Your task to perform on an android device: open app "Paramount+ | Peak Streaming" (install if not already installed) Image 0: 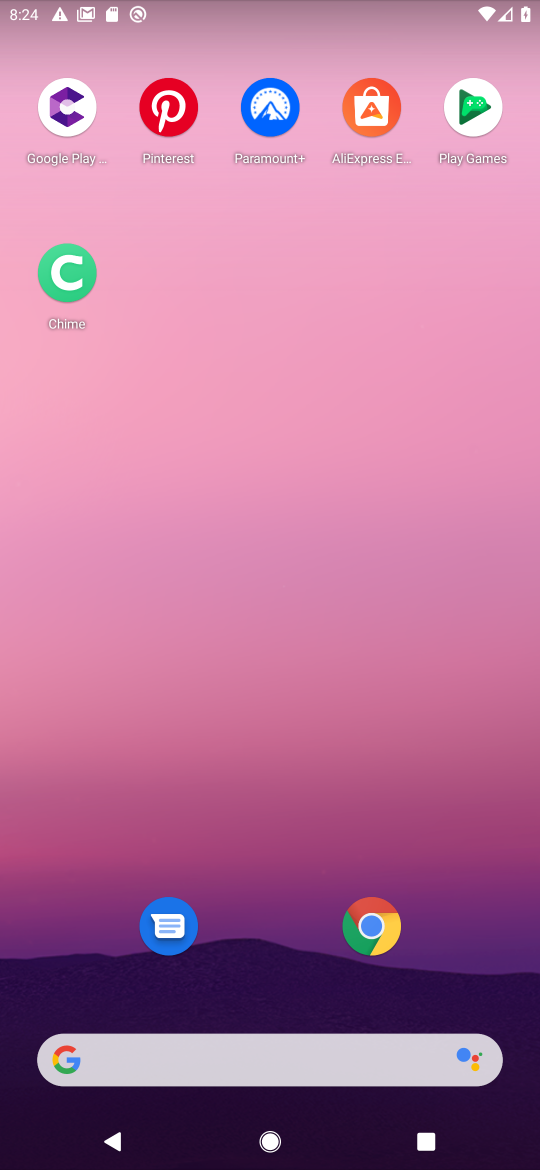
Step 0: click (277, 102)
Your task to perform on an android device: open app "Paramount+ | Peak Streaming" (install if not already installed) Image 1: 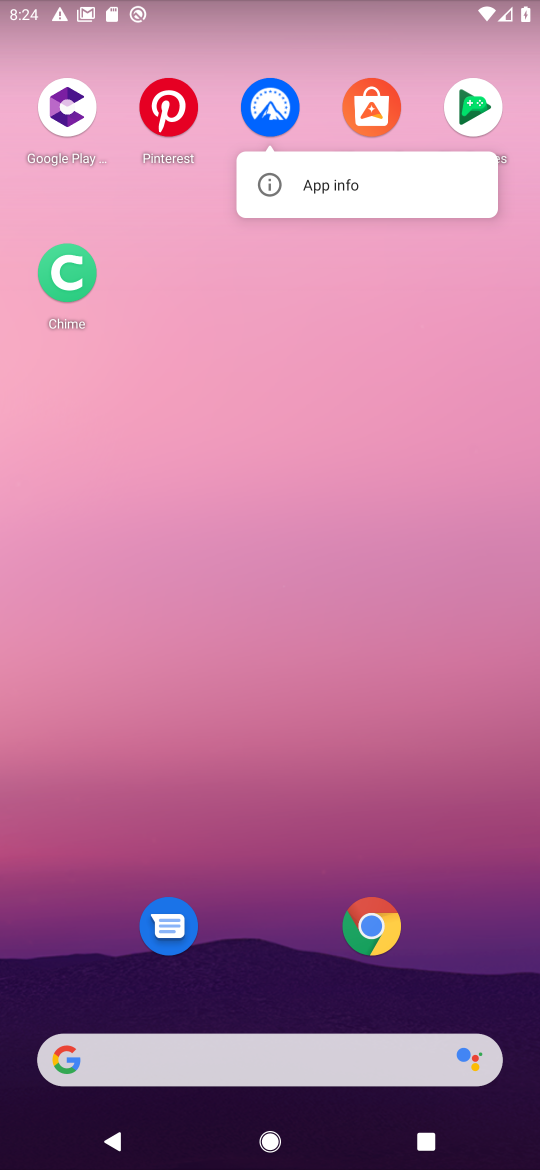
Step 1: click (258, 97)
Your task to perform on an android device: open app "Paramount+ | Peak Streaming" (install if not already installed) Image 2: 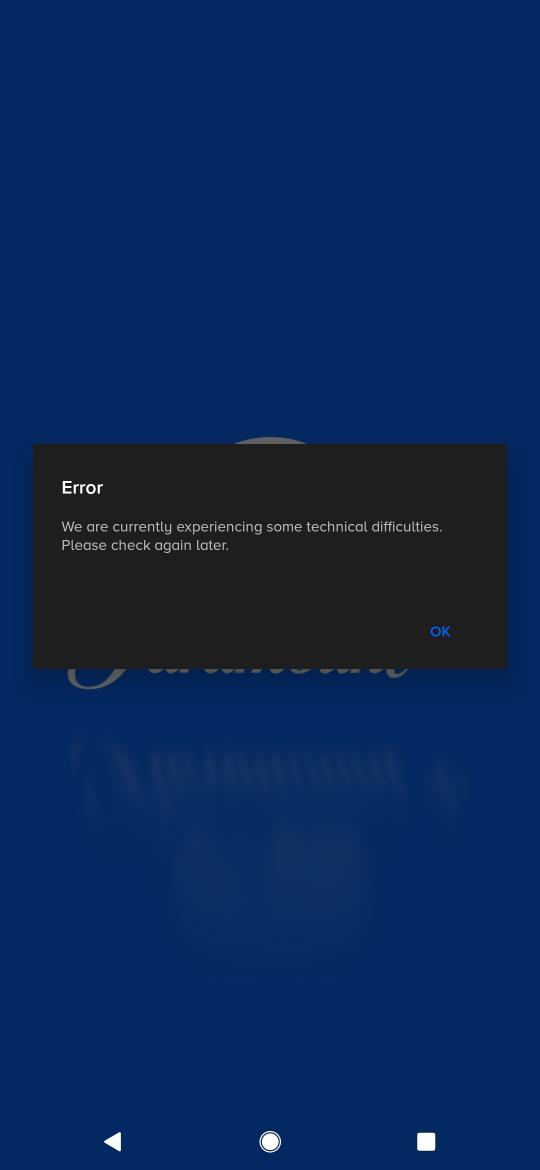
Step 2: task complete